Your task to perform on an android device: add a contact Image 0: 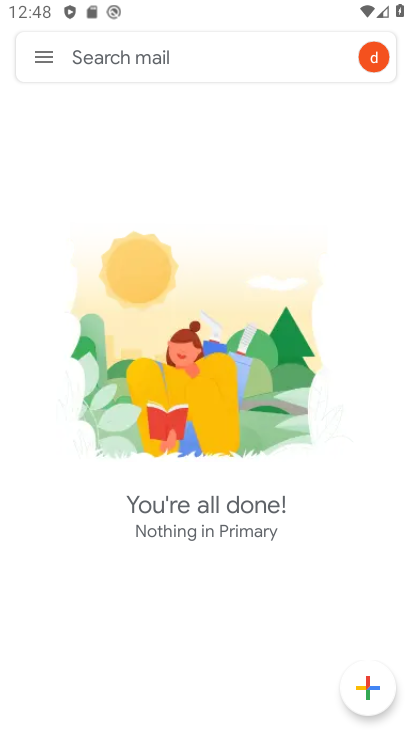
Step 0: press home button
Your task to perform on an android device: add a contact Image 1: 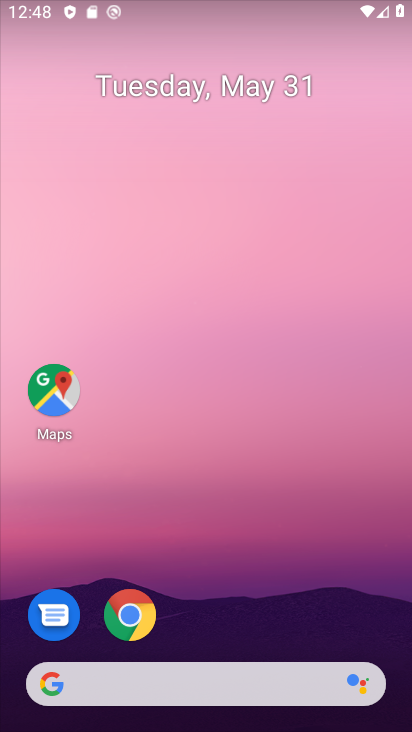
Step 1: drag from (304, 548) to (284, 188)
Your task to perform on an android device: add a contact Image 2: 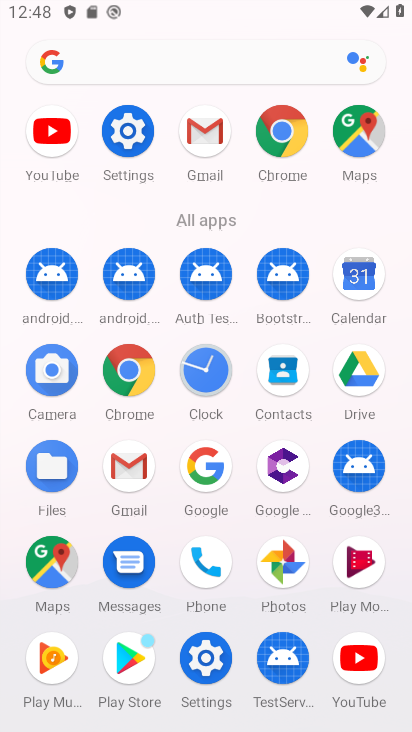
Step 2: click (269, 380)
Your task to perform on an android device: add a contact Image 3: 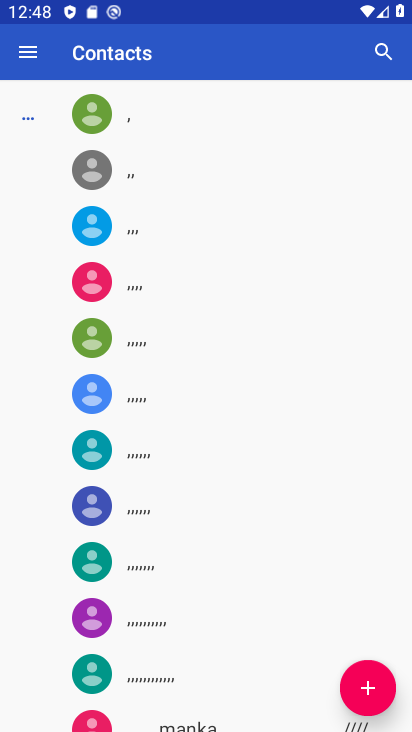
Step 3: click (362, 705)
Your task to perform on an android device: add a contact Image 4: 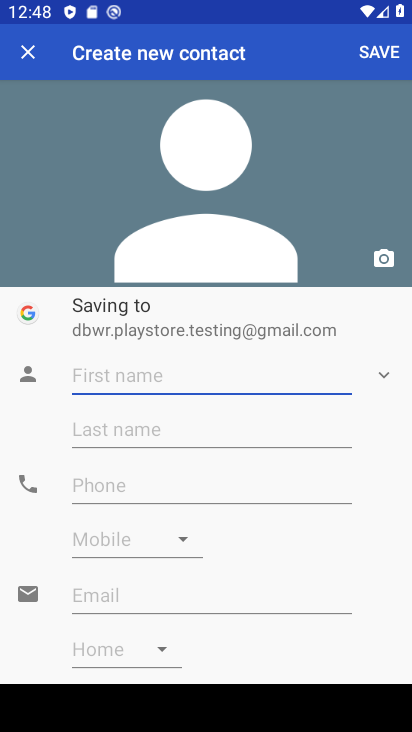
Step 4: click (224, 375)
Your task to perform on an android device: add a contact Image 5: 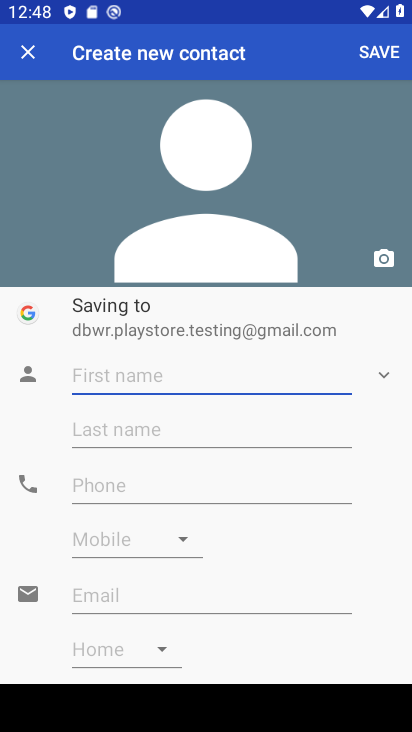
Step 5: type "arvi"
Your task to perform on an android device: add a contact Image 6: 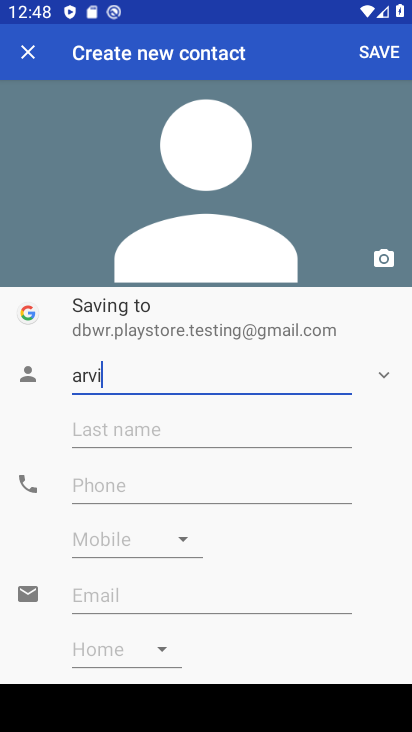
Step 6: click (198, 489)
Your task to perform on an android device: add a contact Image 7: 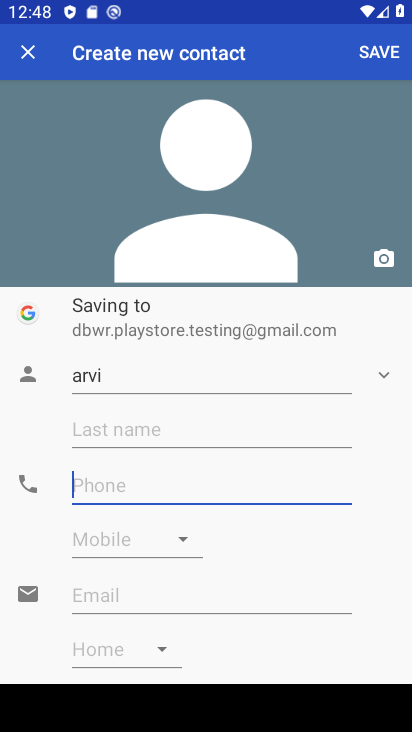
Step 7: type "092893484849"
Your task to perform on an android device: add a contact Image 8: 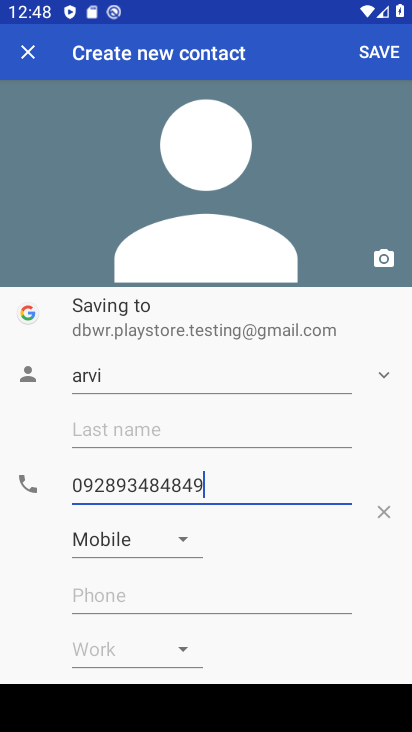
Step 8: click (384, 53)
Your task to perform on an android device: add a contact Image 9: 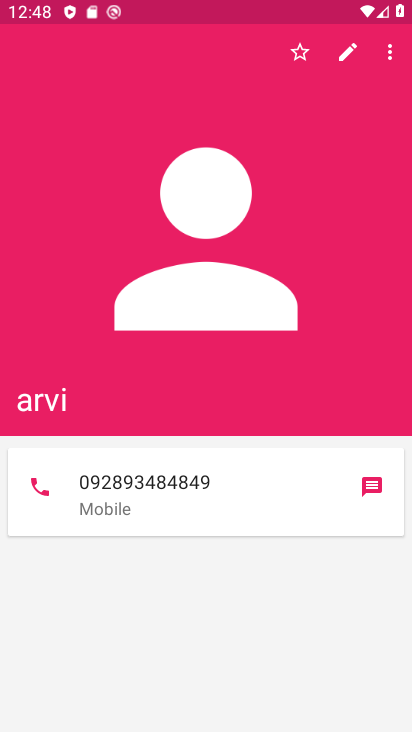
Step 9: task complete